Your task to perform on an android device: delete location history Image 0: 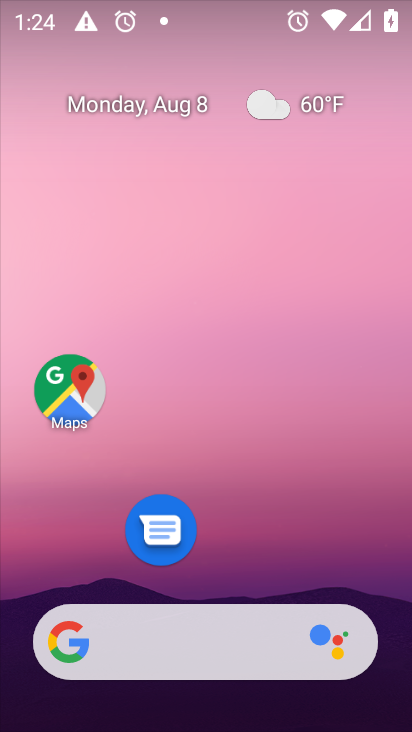
Step 0: drag from (283, 584) to (269, 166)
Your task to perform on an android device: delete location history Image 1: 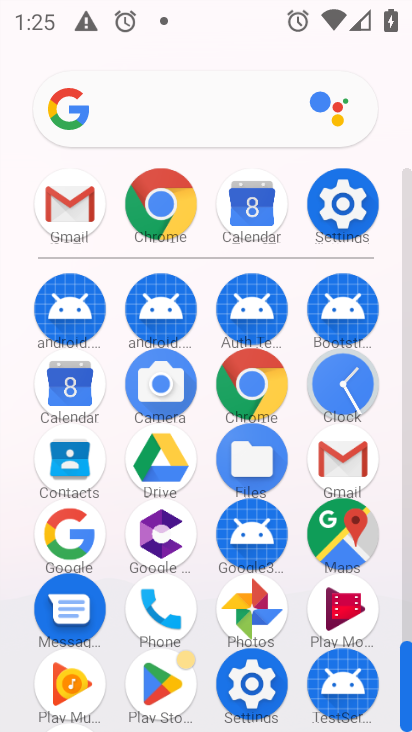
Step 1: click (339, 534)
Your task to perform on an android device: delete location history Image 2: 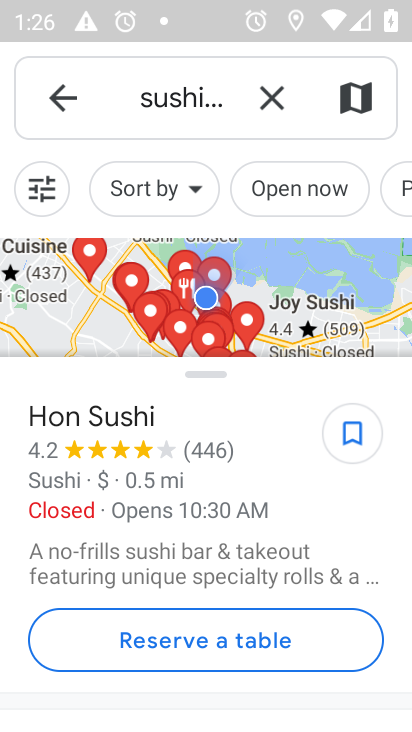
Step 2: click (61, 90)
Your task to perform on an android device: delete location history Image 3: 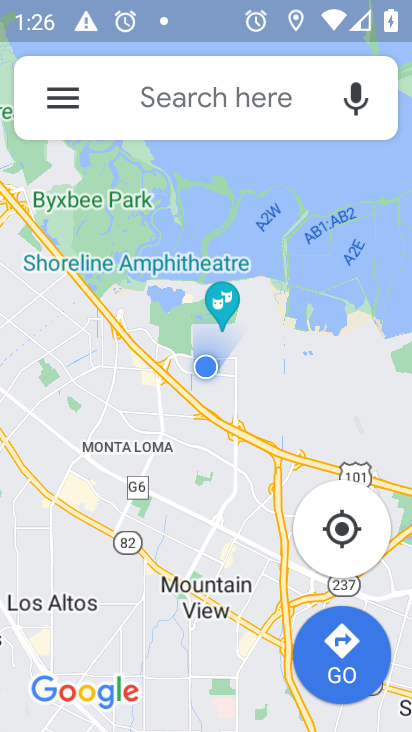
Step 3: click (54, 91)
Your task to perform on an android device: delete location history Image 4: 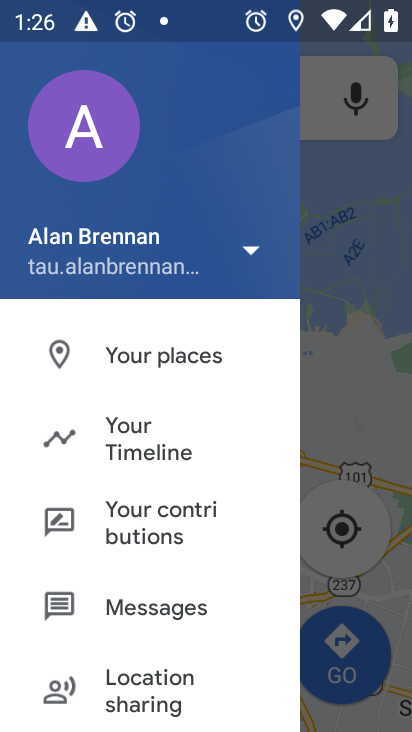
Step 4: click (120, 430)
Your task to perform on an android device: delete location history Image 5: 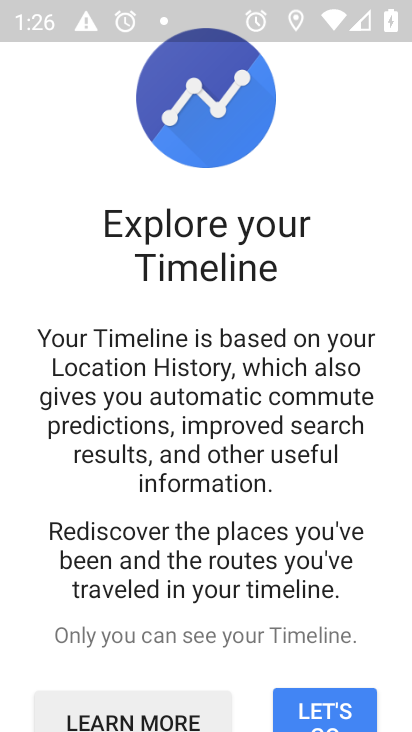
Step 5: click (342, 712)
Your task to perform on an android device: delete location history Image 6: 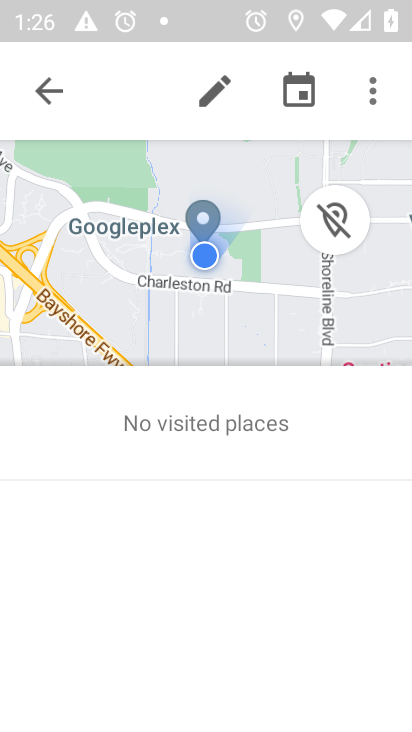
Step 6: click (374, 101)
Your task to perform on an android device: delete location history Image 7: 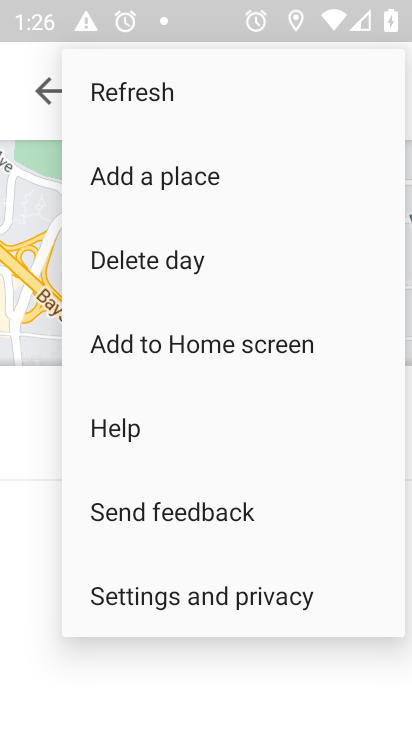
Step 7: click (141, 597)
Your task to perform on an android device: delete location history Image 8: 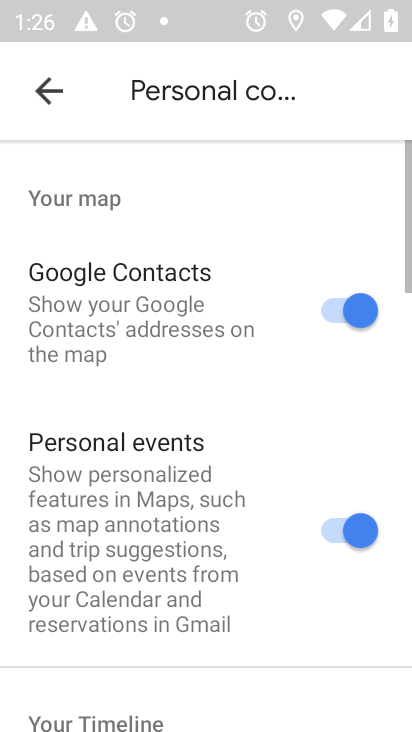
Step 8: drag from (146, 664) to (142, 245)
Your task to perform on an android device: delete location history Image 9: 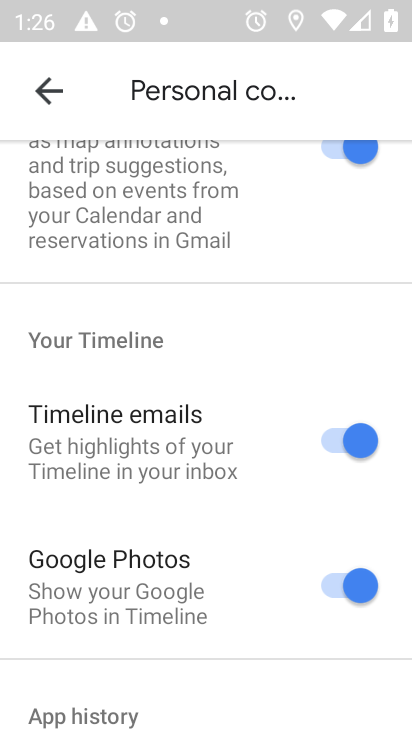
Step 9: drag from (122, 685) to (120, 345)
Your task to perform on an android device: delete location history Image 10: 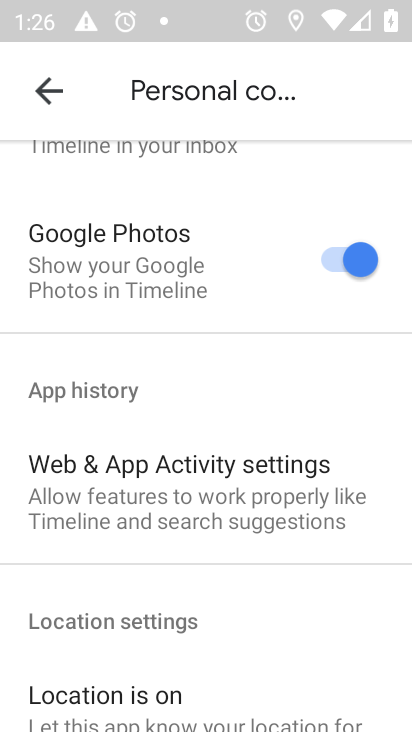
Step 10: drag from (197, 646) to (202, 353)
Your task to perform on an android device: delete location history Image 11: 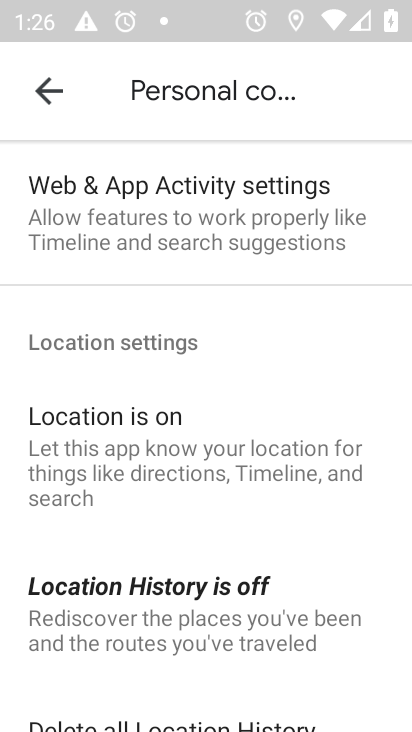
Step 11: drag from (144, 663) to (143, 317)
Your task to perform on an android device: delete location history Image 12: 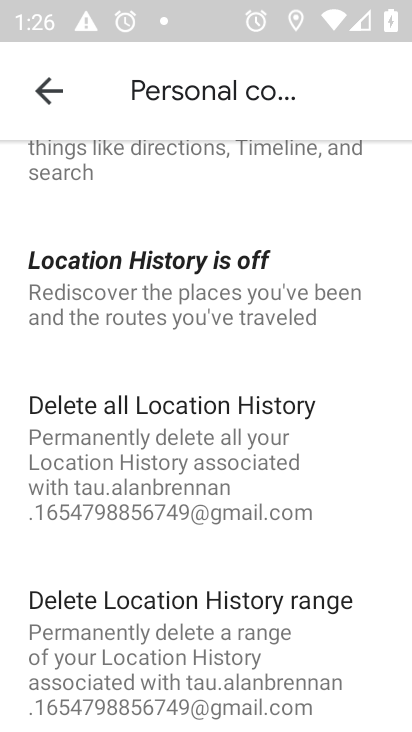
Step 12: click (151, 426)
Your task to perform on an android device: delete location history Image 13: 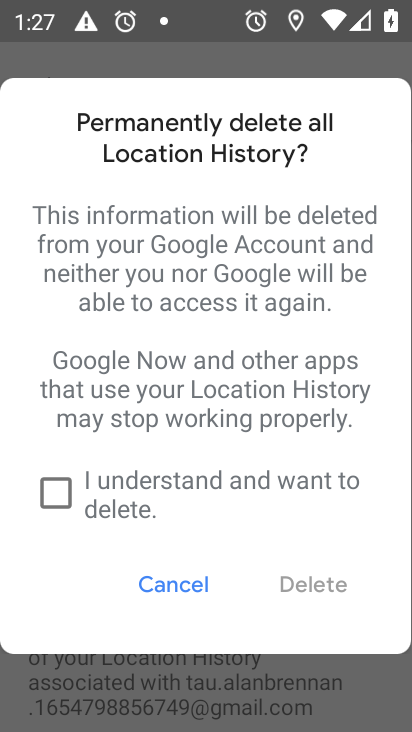
Step 13: click (46, 496)
Your task to perform on an android device: delete location history Image 14: 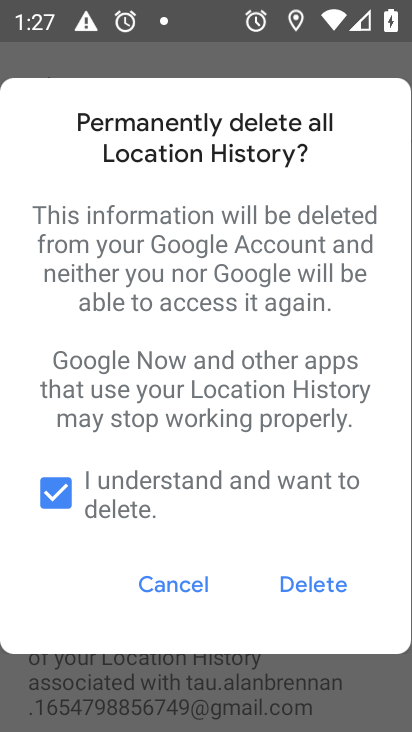
Step 14: click (312, 592)
Your task to perform on an android device: delete location history Image 15: 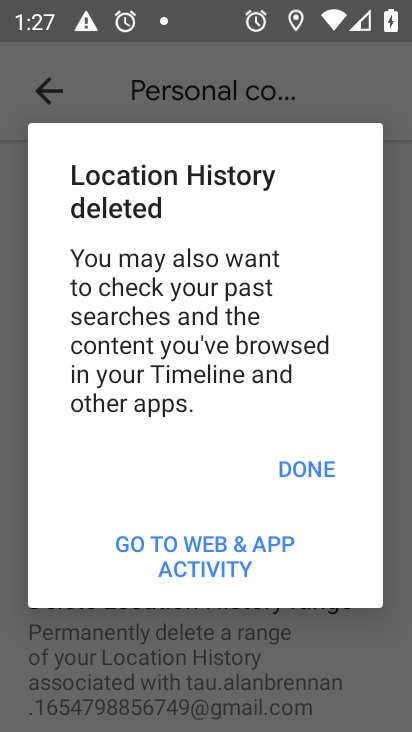
Step 15: click (294, 462)
Your task to perform on an android device: delete location history Image 16: 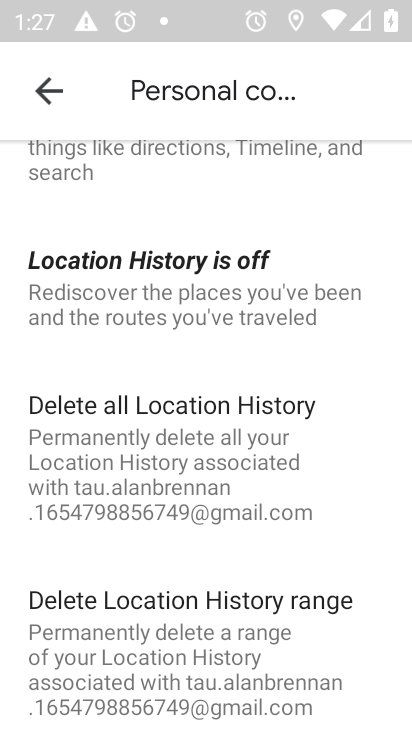
Step 16: task complete